Your task to perform on an android device: turn off translation in the chrome app Image 0: 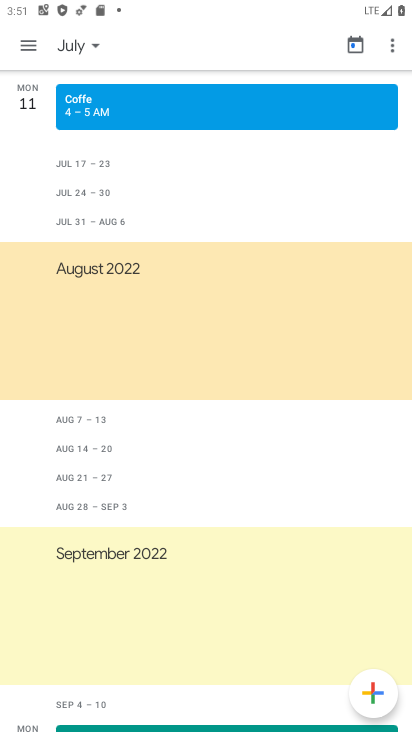
Step 0: press home button
Your task to perform on an android device: turn off translation in the chrome app Image 1: 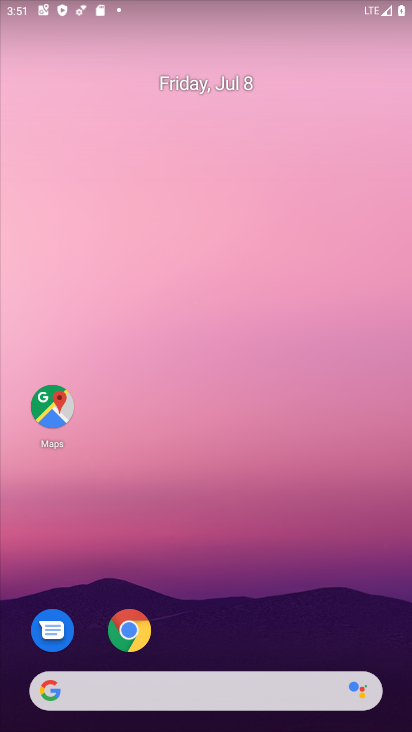
Step 1: click (130, 633)
Your task to perform on an android device: turn off translation in the chrome app Image 2: 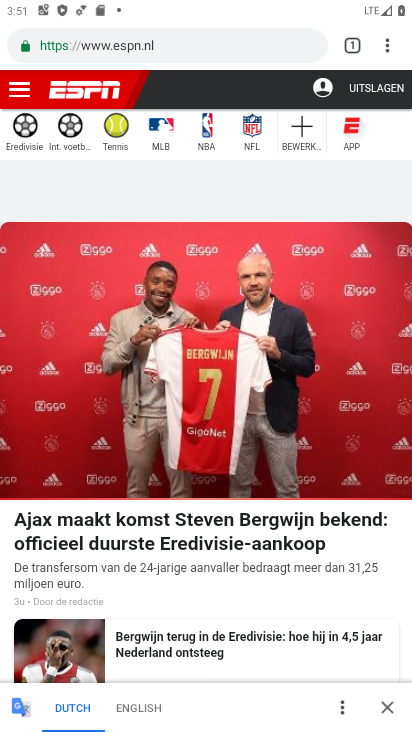
Step 2: click (385, 47)
Your task to perform on an android device: turn off translation in the chrome app Image 3: 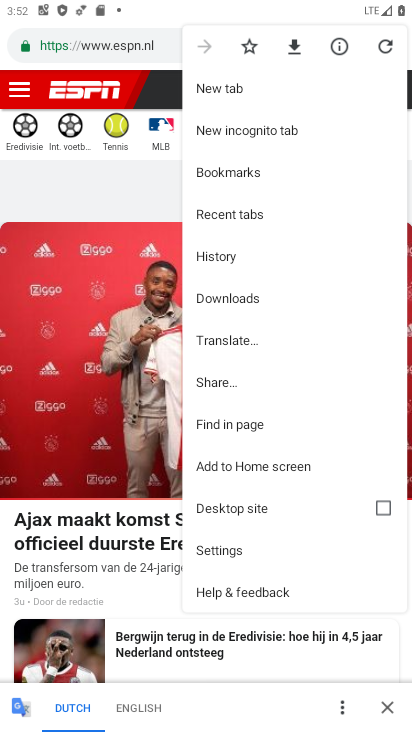
Step 3: click (224, 549)
Your task to perform on an android device: turn off translation in the chrome app Image 4: 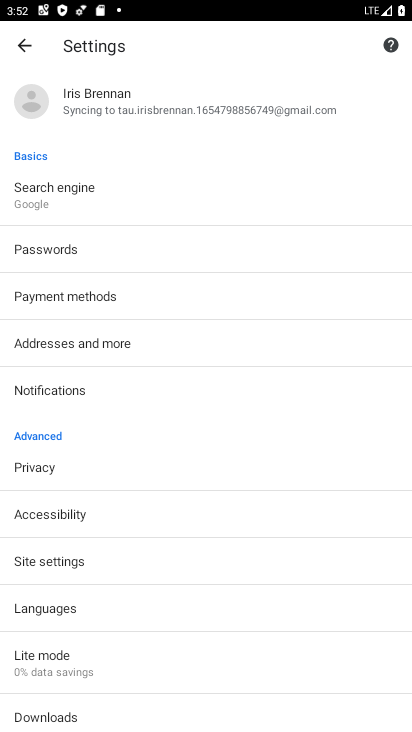
Step 4: click (57, 609)
Your task to perform on an android device: turn off translation in the chrome app Image 5: 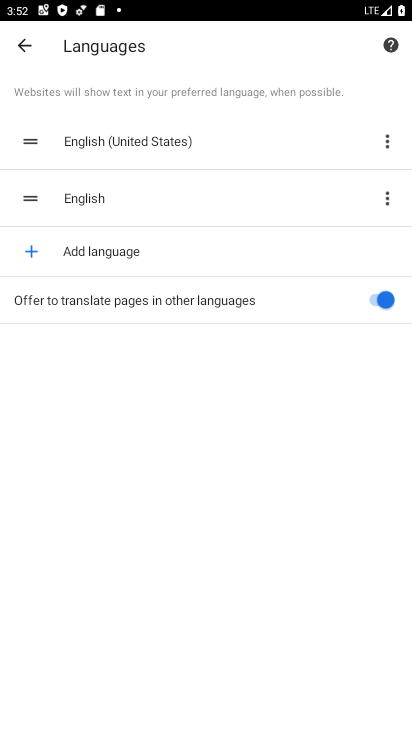
Step 5: click (378, 303)
Your task to perform on an android device: turn off translation in the chrome app Image 6: 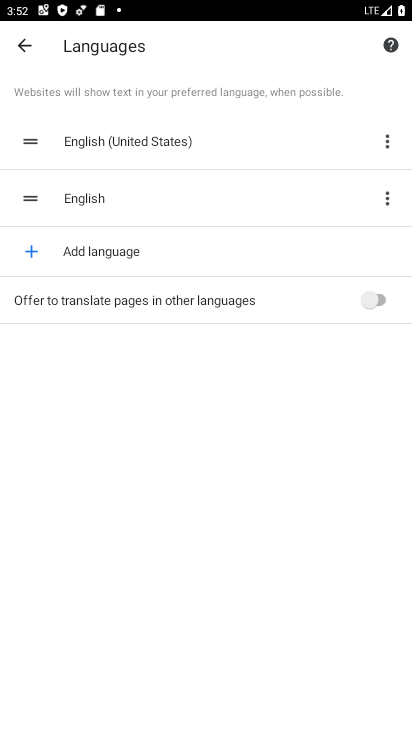
Step 6: task complete